Your task to perform on an android device: Open the Play Movies app and select the watchlist tab. Image 0: 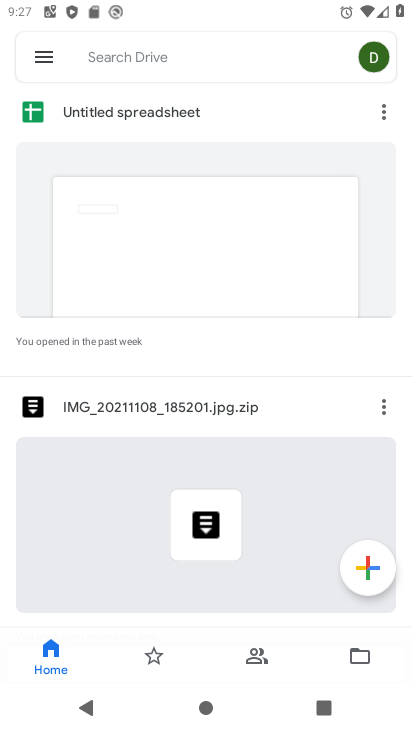
Step 0: press home button
Your task to perform on an android device: Open the Play Movies app and select the watchlist tab. Image 1: 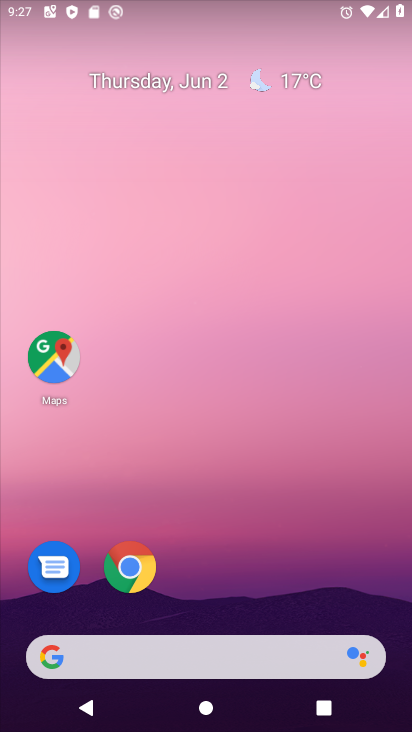
Step 1: drag from (229, 599) to (250, 328)
Your task to perform on an android device: Open the Play Movies app and select the watchlist tab. Image 2: 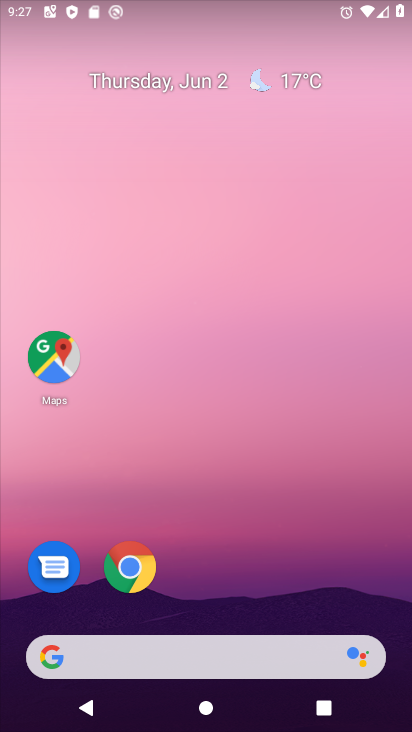
Step 2: drag from (201, 621) to (165, 6)
Your task to perform on an android device: Open the Play Movies app and select the watchlist tab. Image 3: 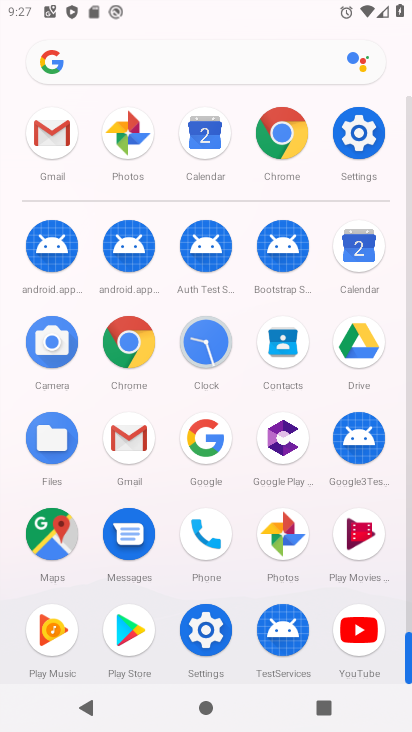
Step 3: click (365, 551)
Your task to perform on an android device: Open the Play Movies app and select the watchlist tab. Image 4: 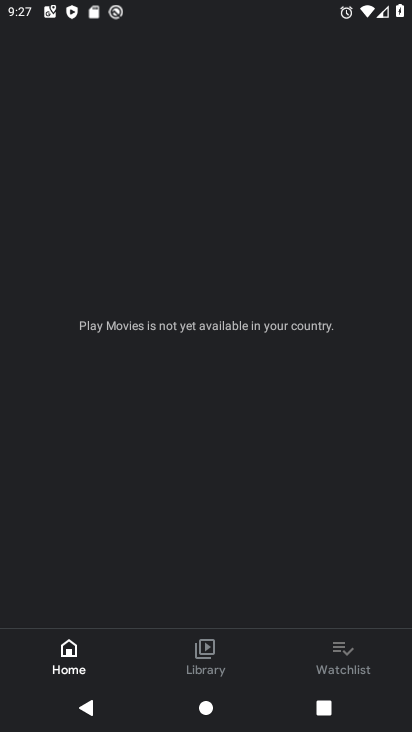
Step 4: task complete